Your task to perform on an android device: choose inbox layout in the gmail app Image 0: 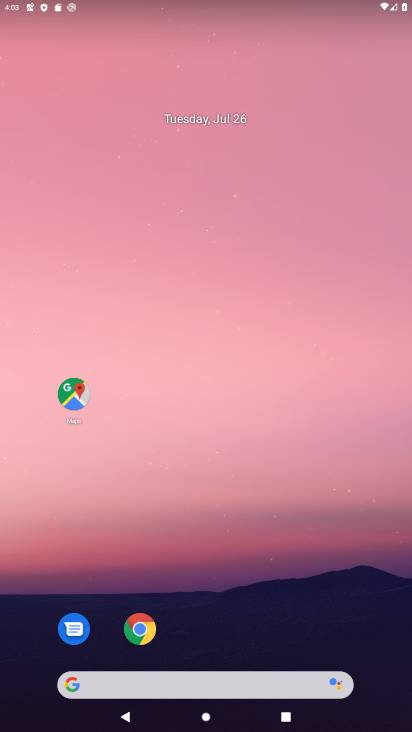
Step 0: drag from (331, 636) to (274, 451)
Your task to perform on an android device: choose inbox layout in the gmail app Image 1: 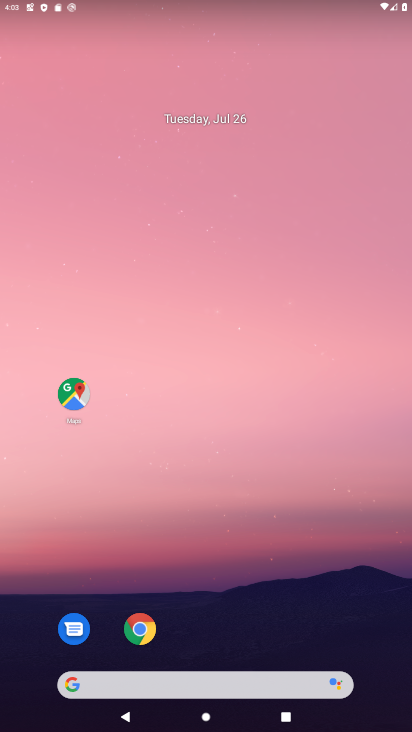
Step 1: click (336, 485)
Your task to perform on an android device: choose inbox layout in the gmail app Image 2: 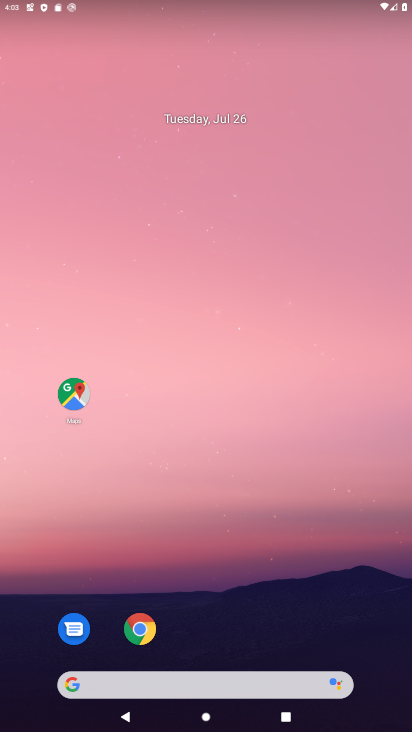
Step 2: click (273, 473)
Your task to perform on an android device: choose inbox layout in the gmail app Image 3: 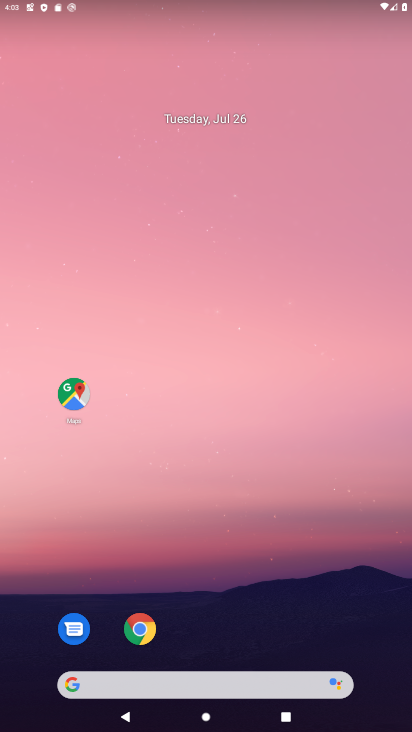
Step 3: drag from (352, 460) to (237, 0)
Your task to perform on an android device: choose inbox layout in the gmail app Image 4: 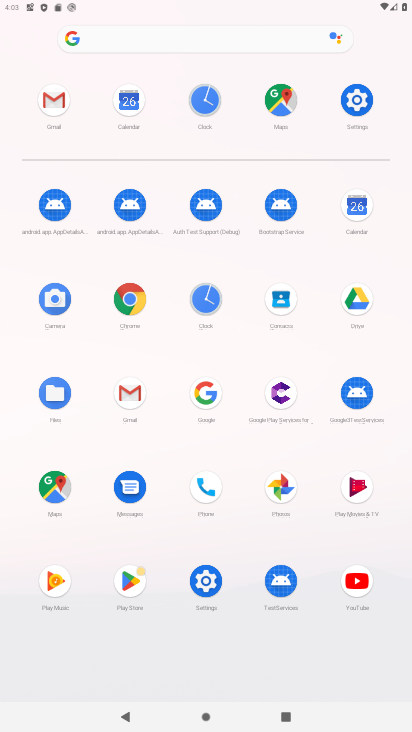
Step 4: click (136, 398)
Your task to perform on an android device: choose inbox layout in the gmail app Image 5: 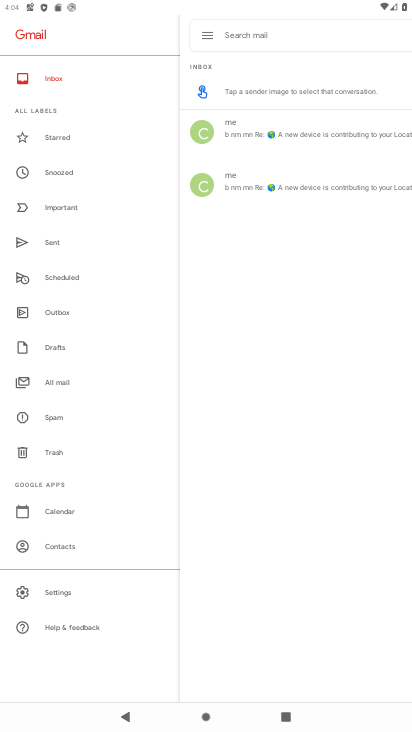
Step 5: click (108, 593)
Your task to perform on an android device: choose inbox layout in the gmail app Image 6: 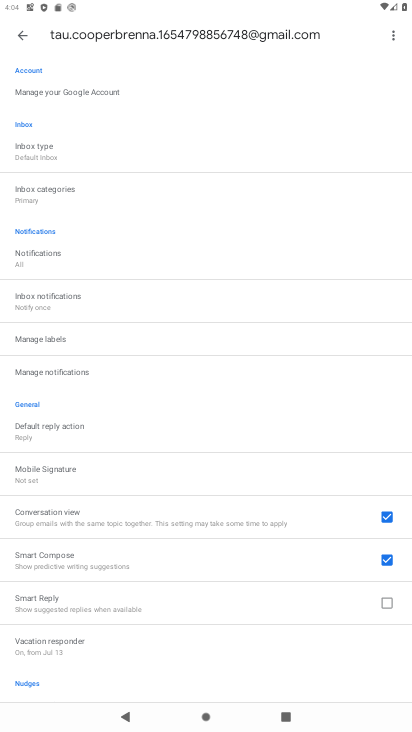
Step 6: click (64, 146)
Your task to perform on an android device: choose inbox layout in the gmail app Image 7: 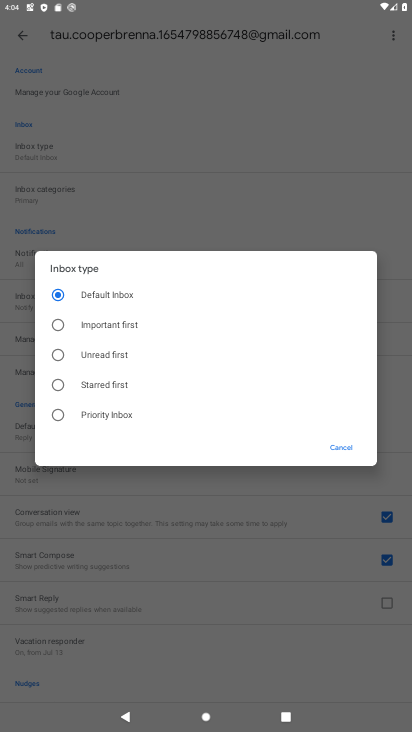
Step 7: click (100, 352)
Your task to perform on an android device: choose inbox layout in the gmail app Image 8: 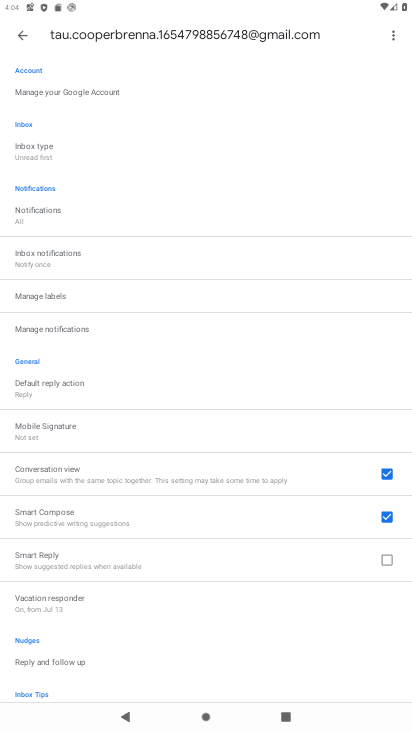
Step 8: task complete